Your task to perform on an android device: Open the map Image 0: 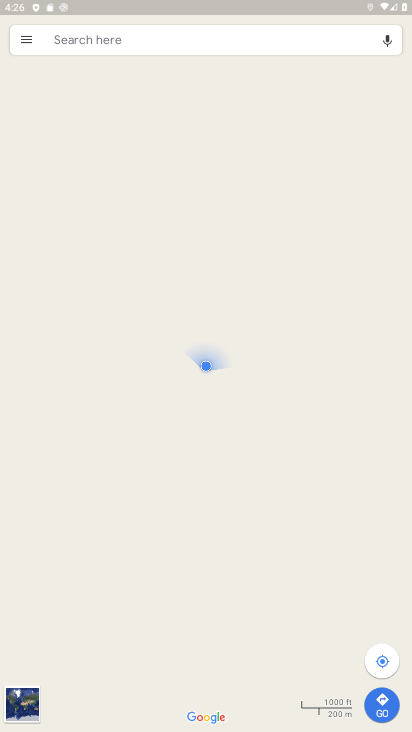
Step 0: task complete